Your task to perform on an android device: Open Google Maps and go to "Timeline" Image 0: 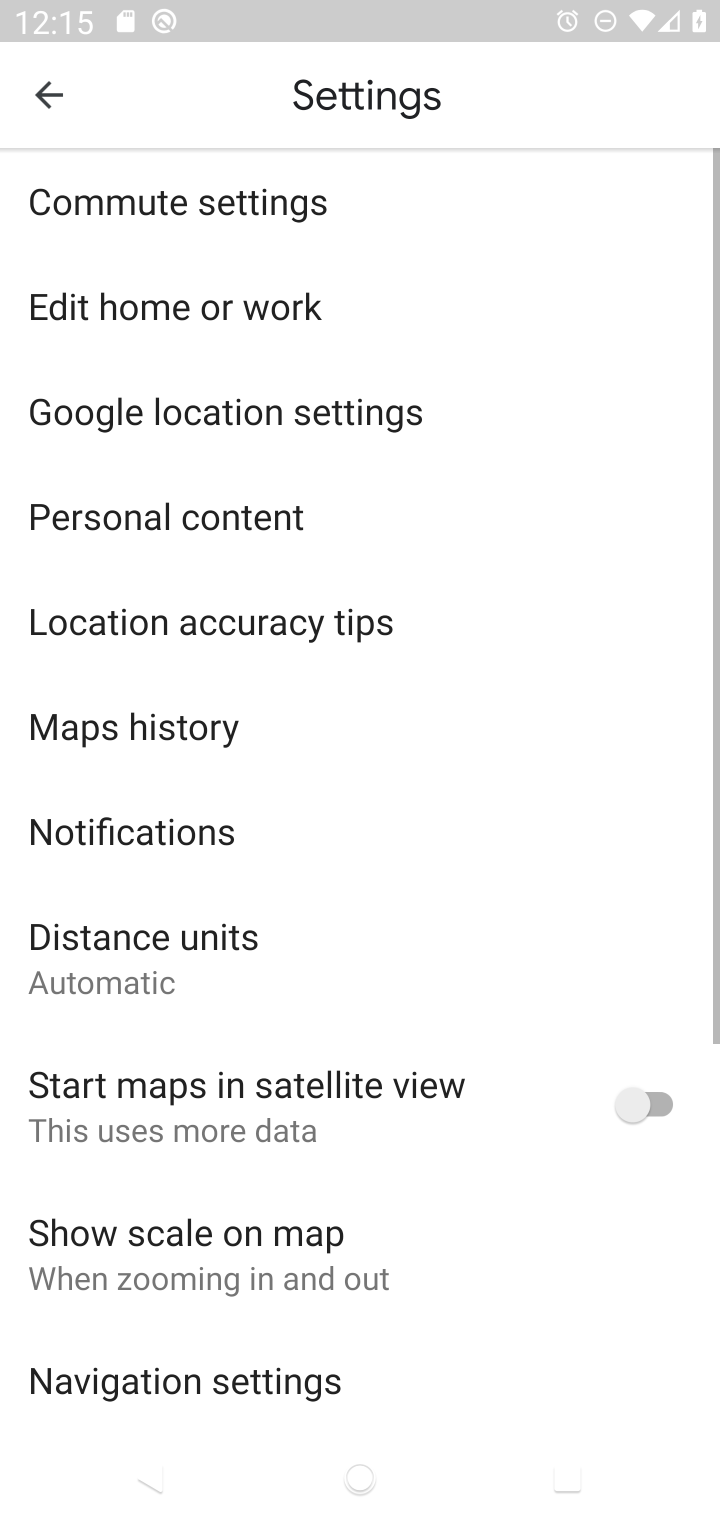
Step 0: press home button
Your task to perform on an android device: Open Google Maps and go to "Timeline" Image 1: 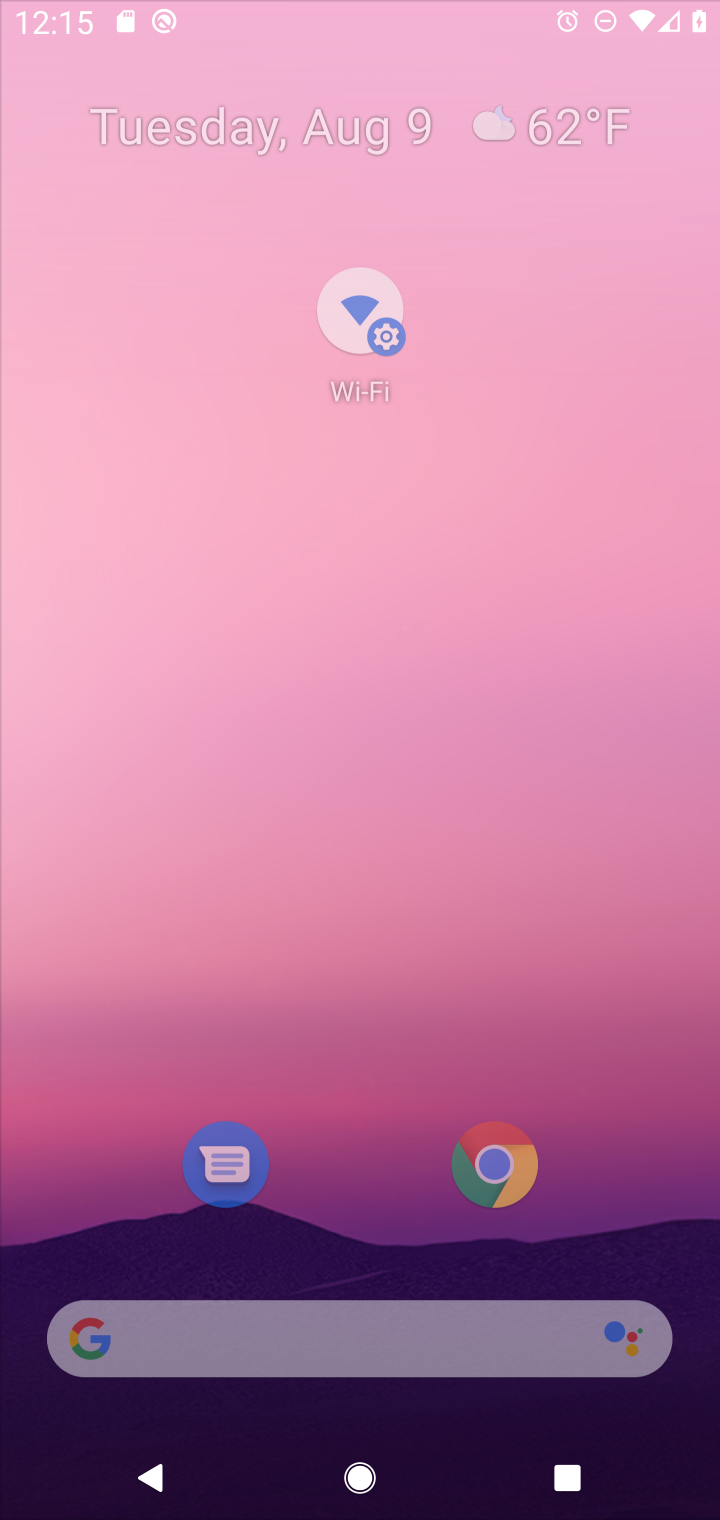
Step 1: press home button
Your task to perform on an android device: Open Google Maps and go to "Timeline" Image 2: 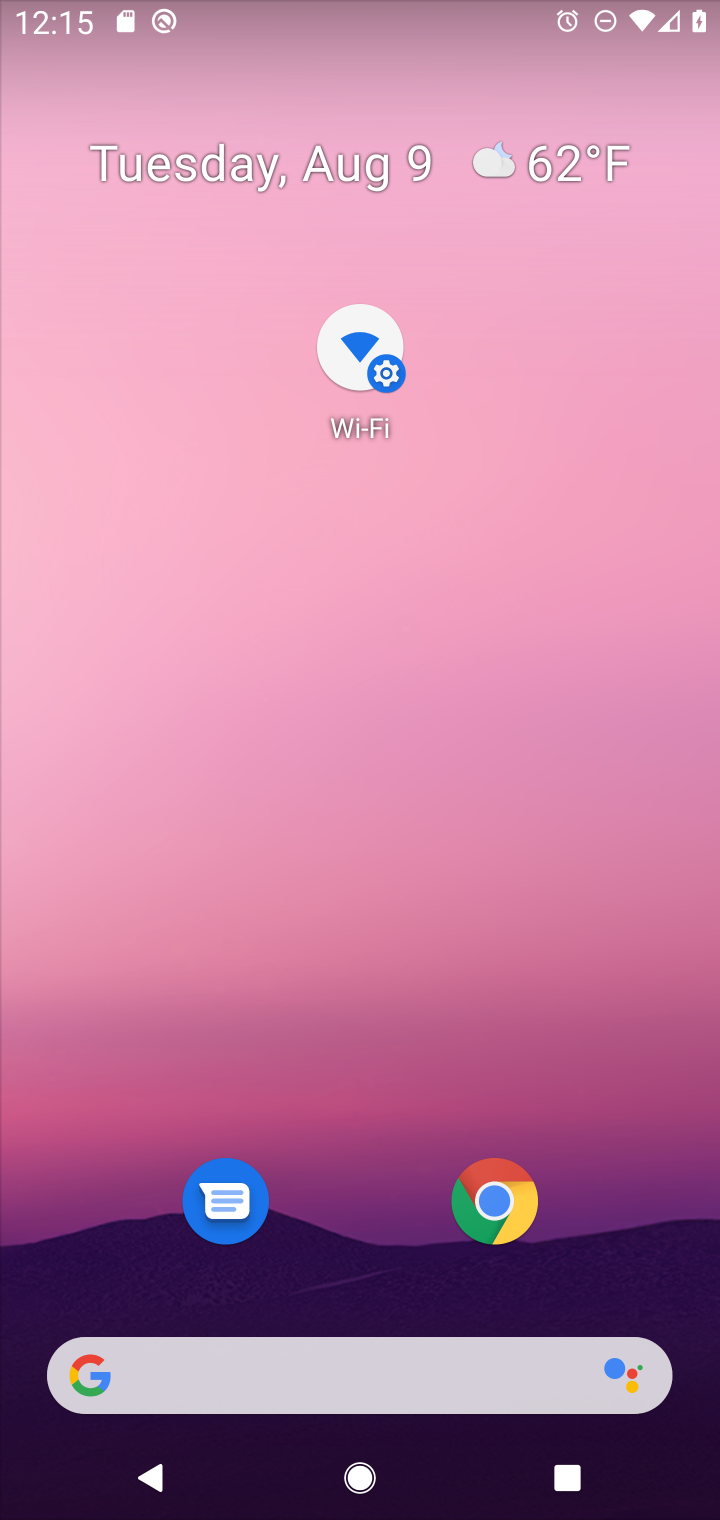
Step 2: drag from (605, 1069) to (647, 235)
Your task to perform on an android device: Open Google Maps and go to "Timeline" Image 3: 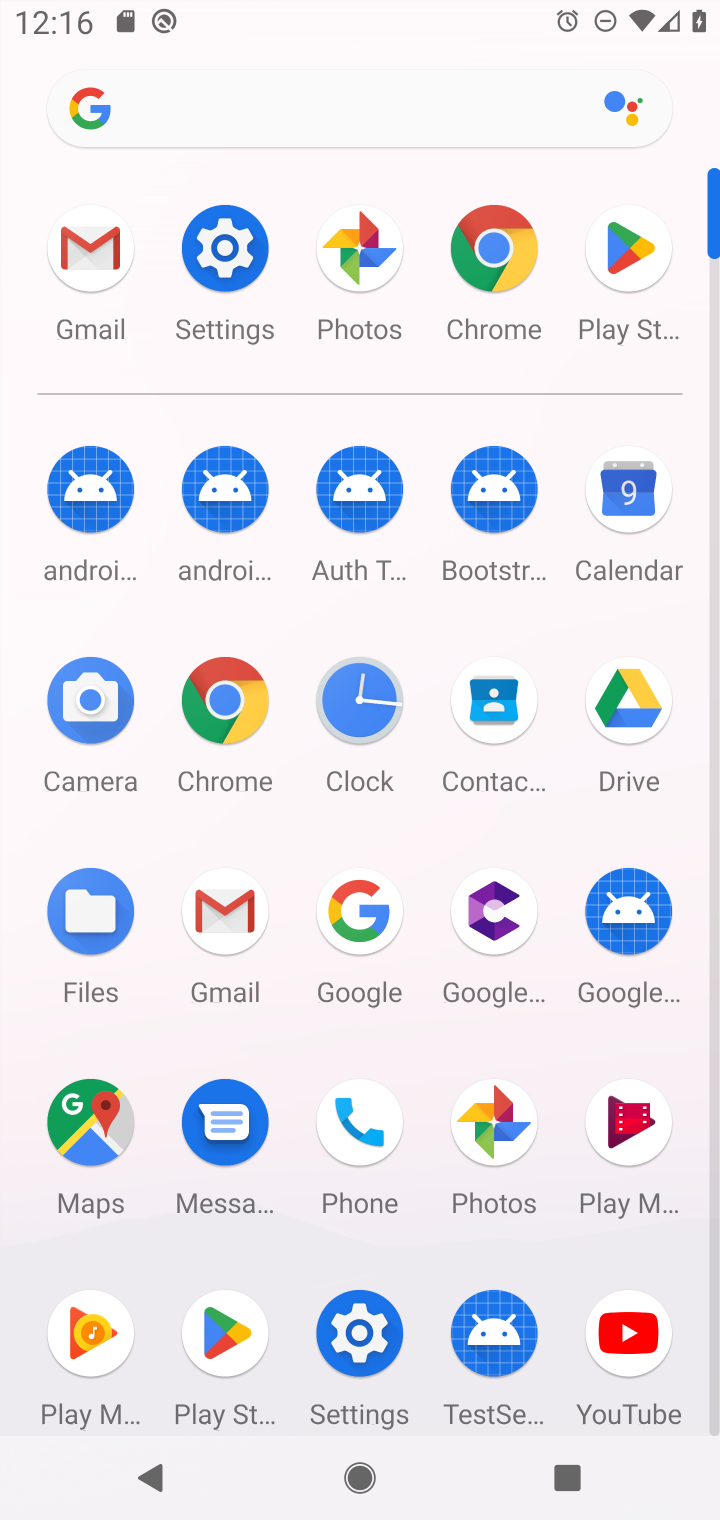
Step 3: click (84, 1131)
Your task to perform on an android device: Open Google Maps and go to "Timeline" Image 4: 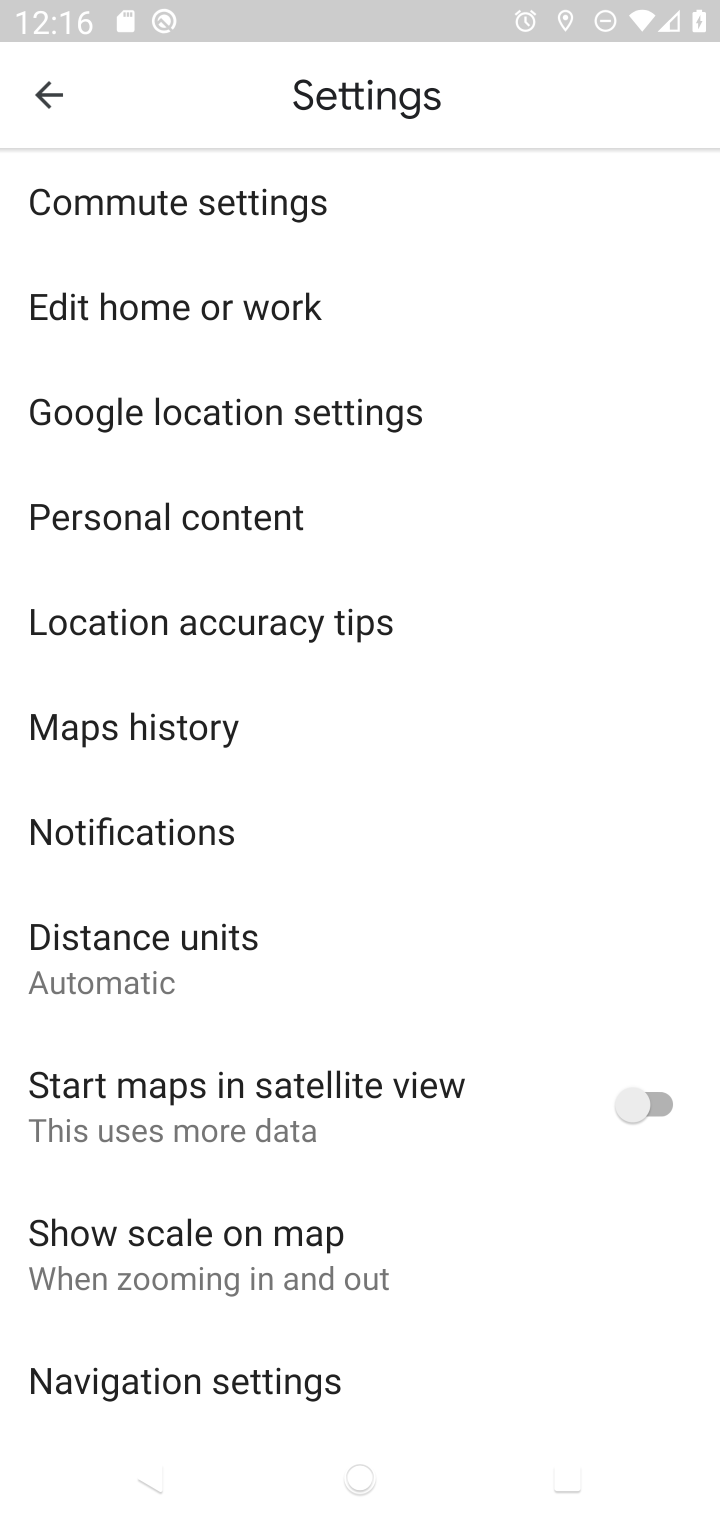
Step 4: press back button
Your task to perform on an android device: Open Google Maps and go to "Timeline" Image 5: 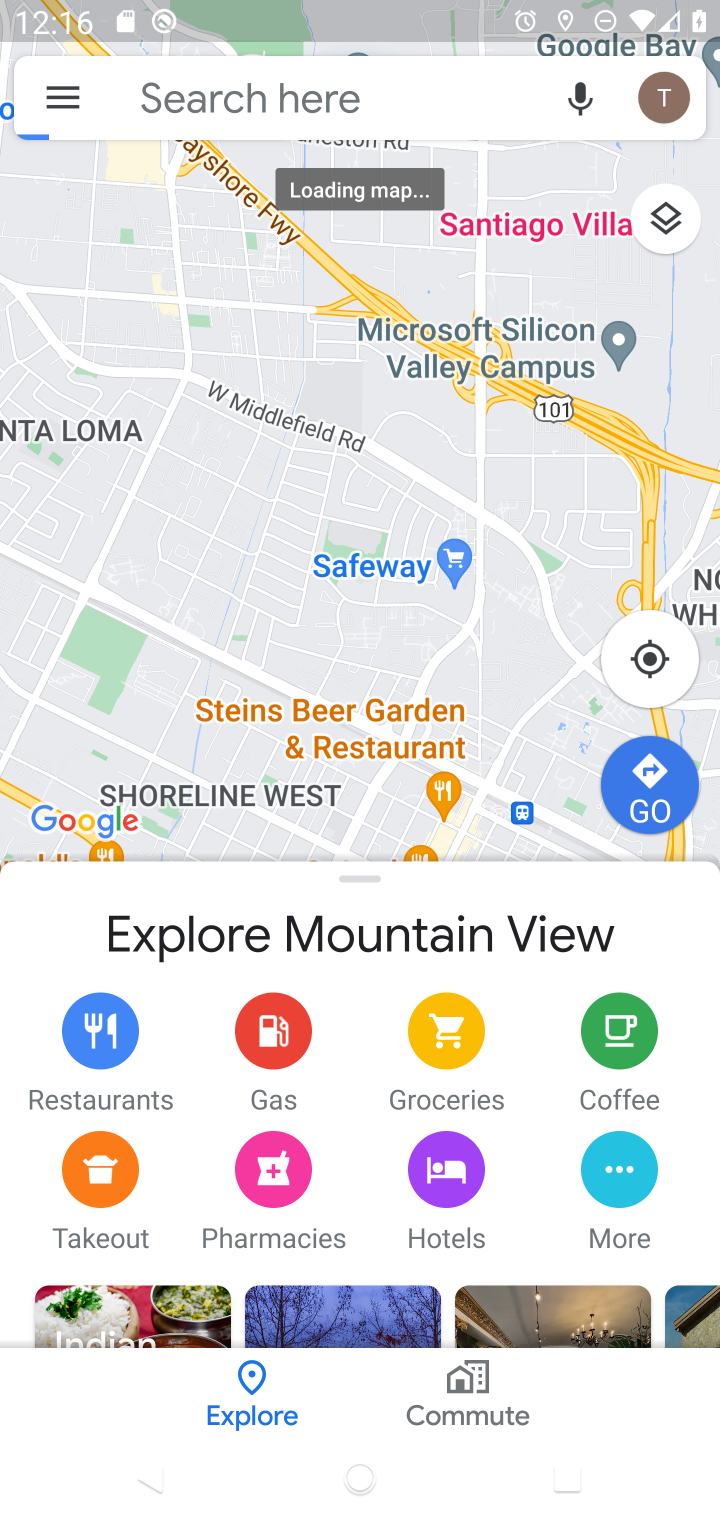
Step 5: click (72, 81)
Your task to perform on an android device: Open Google Maps and go to "Timeline" Image 6: 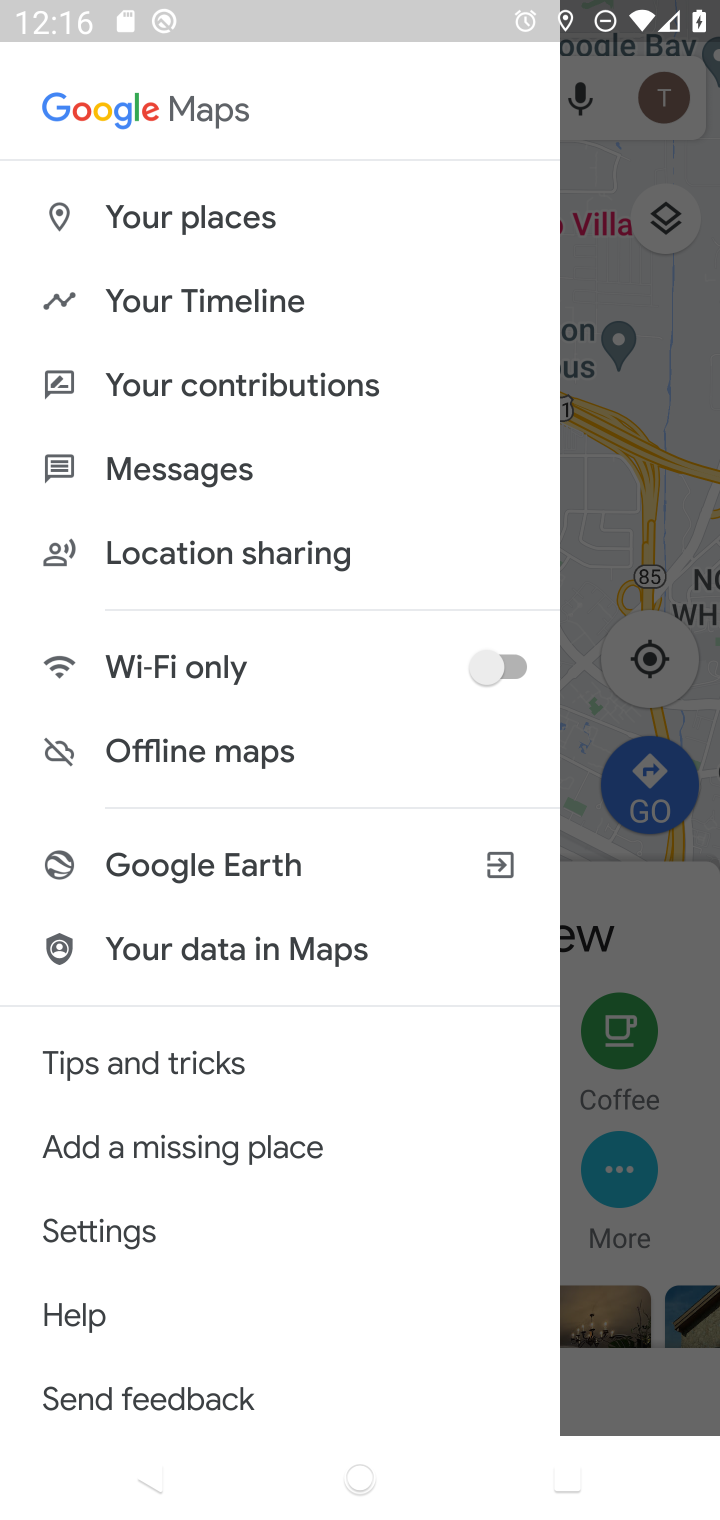
Step 6: drag from (385, 606) to (388, 993)
Your task to perform on an android device: Open Google Maps and go to "Timeline" Image 7: 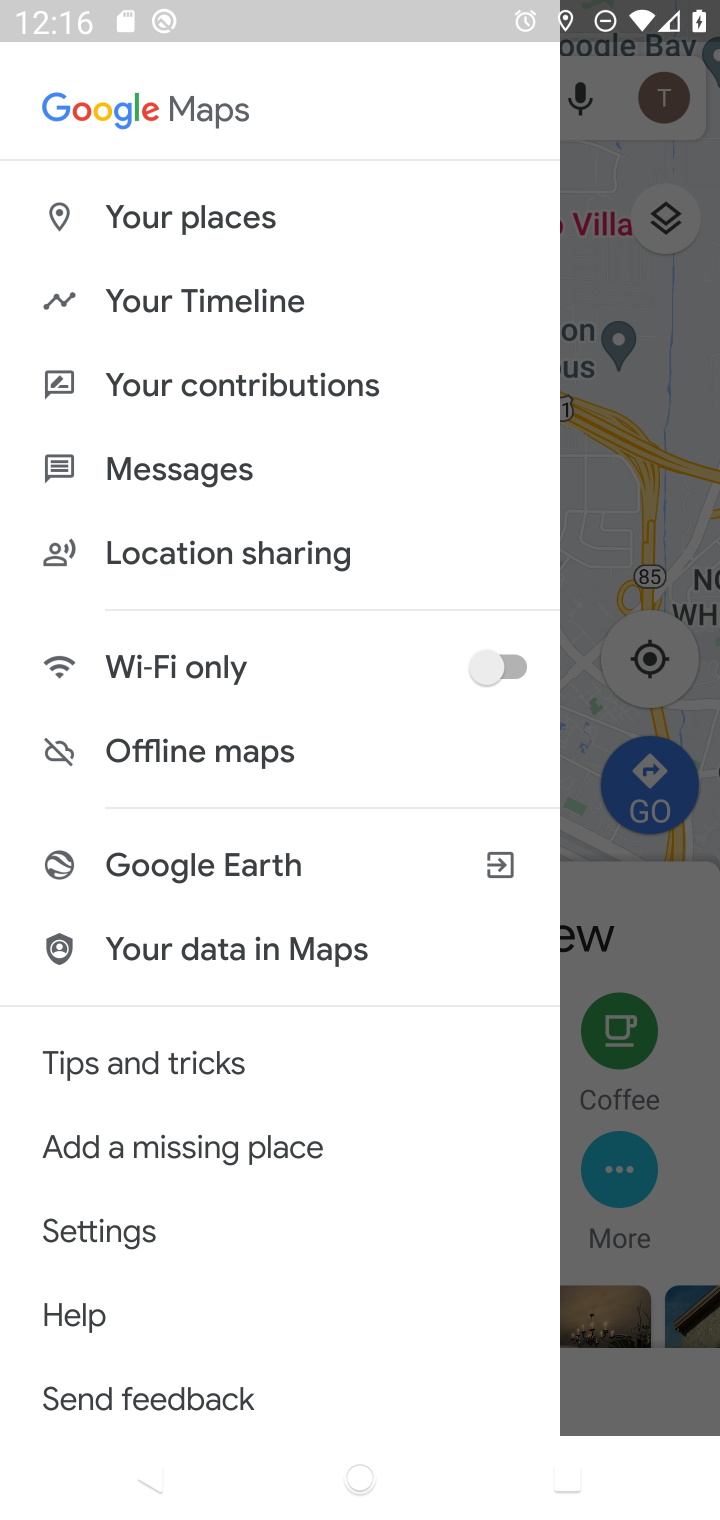
Step 7: click (304, 298)
Your task to perform on an android device: Open Google Maps and go to "Timeline" Image 8: 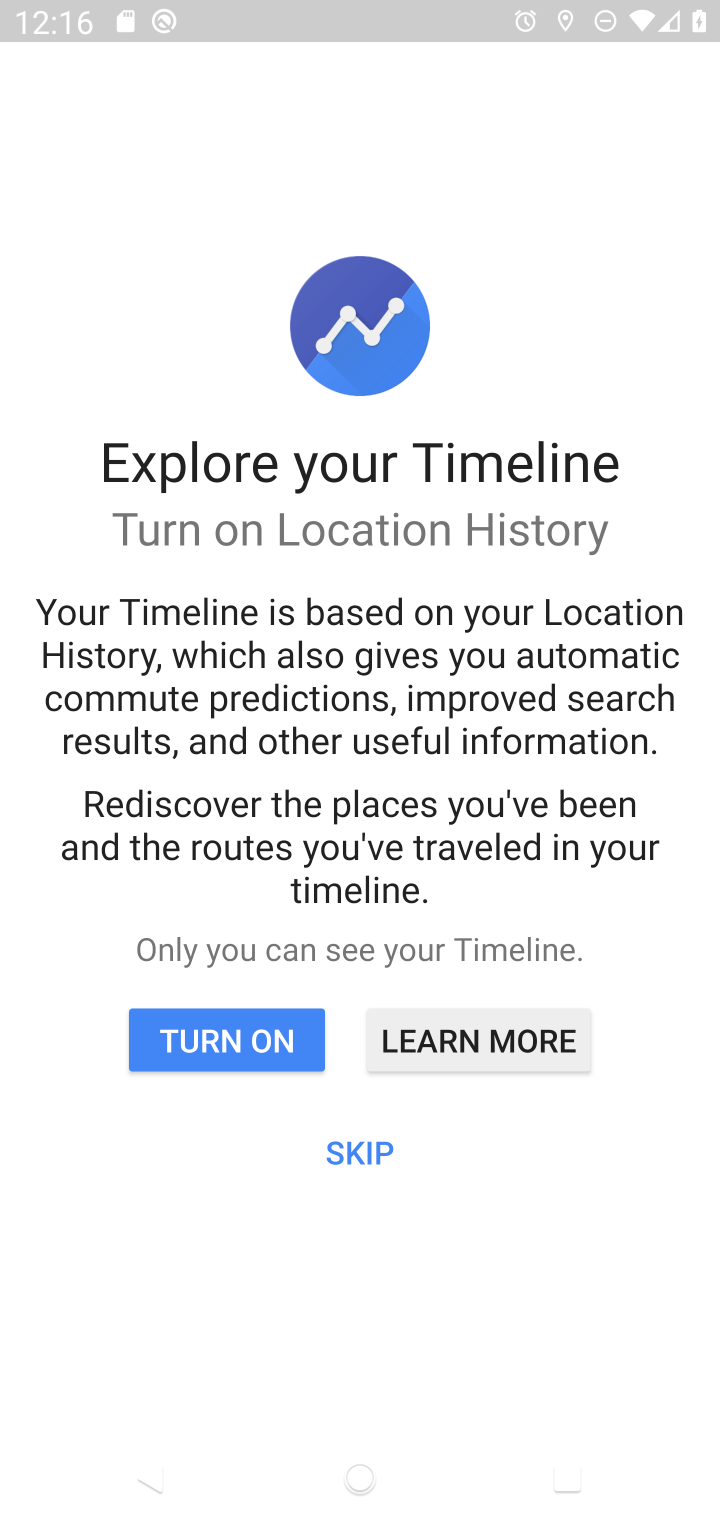
Step 8: task complete